Your task to perform on an android device: Search for a runner rug on Crate & Barrel Image 0: 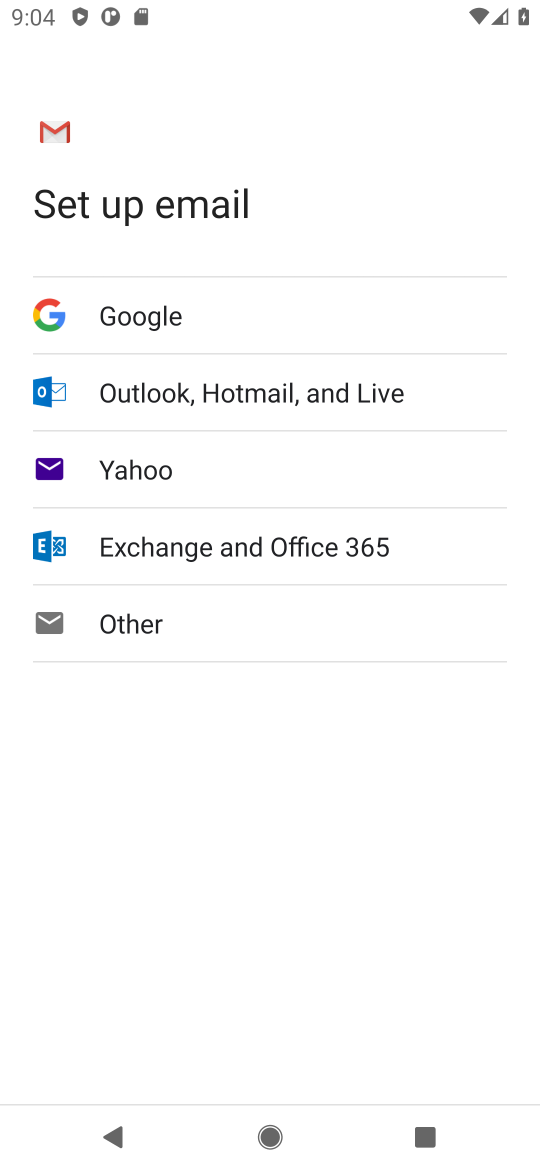
Step 0: press home button
Your task to perform on an android device: Search for a runner rug on Crate & Barrel Image 1: 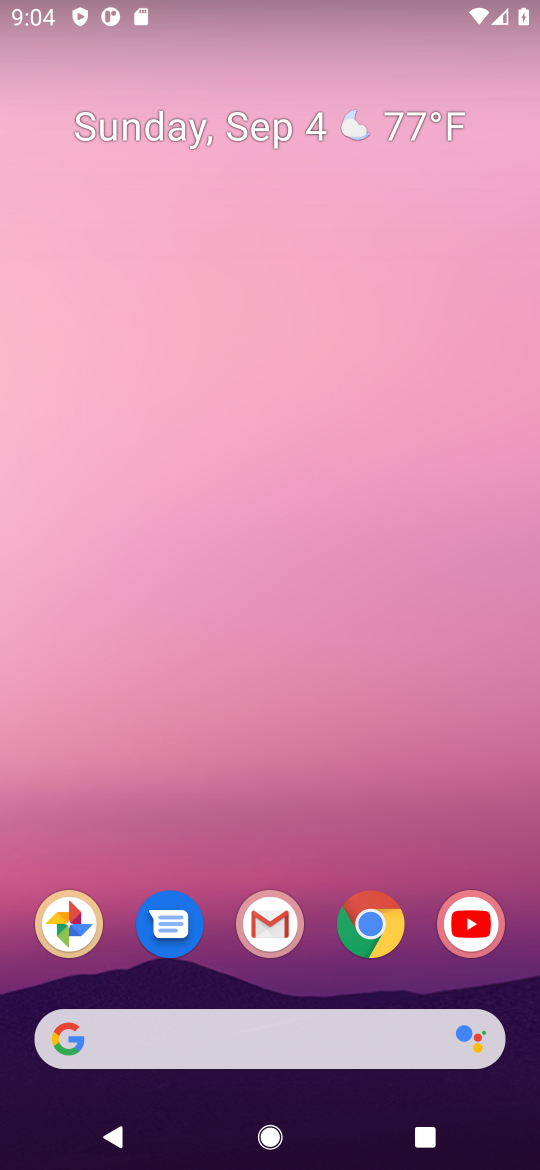
Step 1: drag from (128, 1024) to (279, 35)
Your task to perform on an android device: Search for a runner rug on Crate & Barrel Image 2: 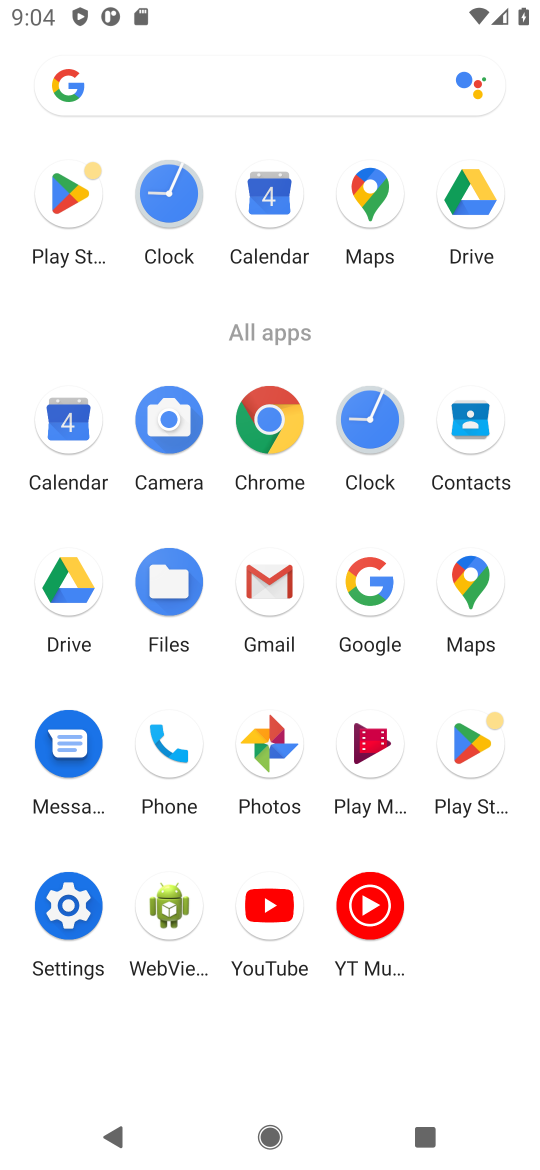
Step 2: click (361, 568)
Your task to perform on an android device: Search for a runner rug on Crate & Barrel Image 3: 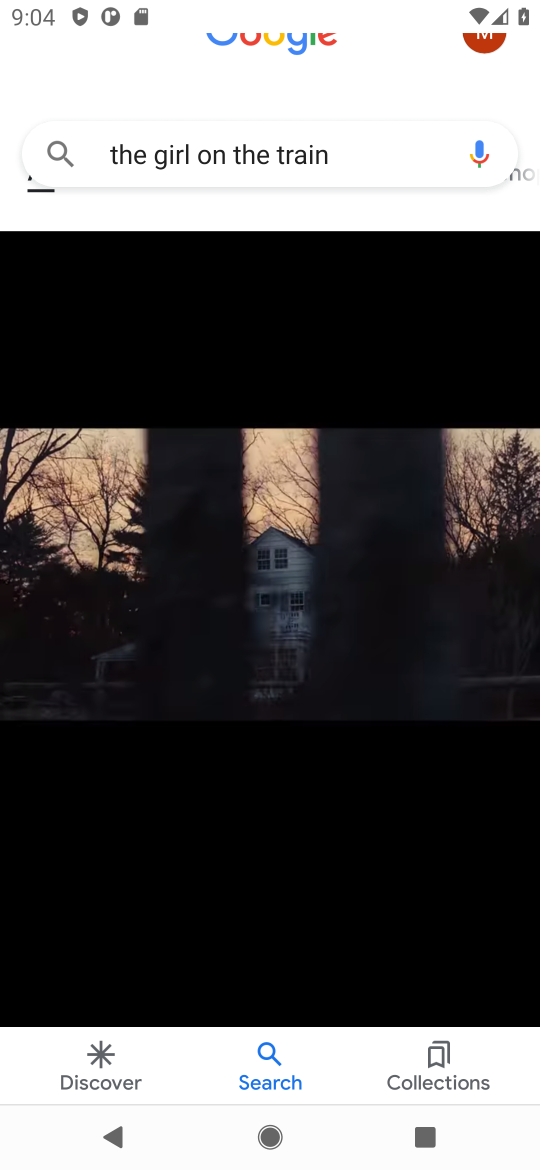
Step 3: click (355, 155)
Your task to perform on an android device: Search for a runner rug on Crate & Barrel Image 4: 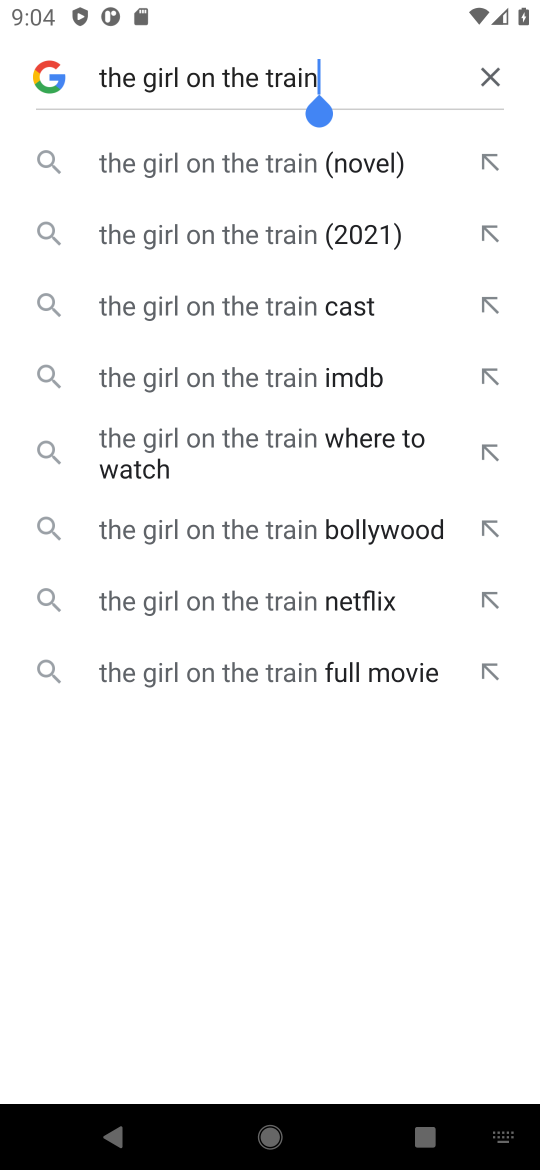
Step 4: click (470, 79)
Your task to perform on an android device: Search for a runner rug on Crate & Barrel Image 5: 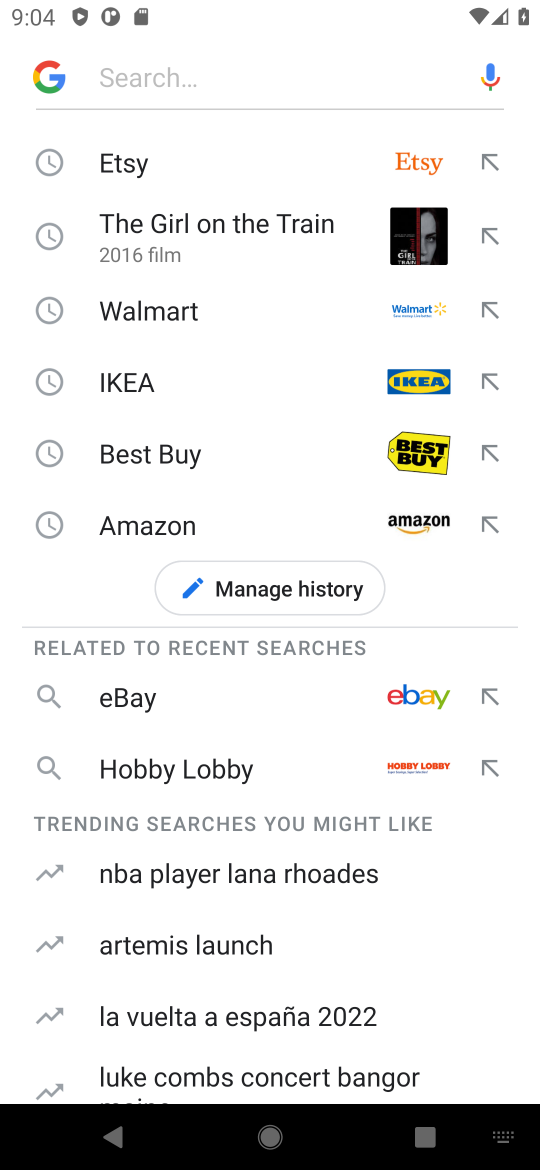
Step 5: type "Crate & Barrel"
Your task to perform on an android device: Search for a runner rug on Crate & Barrel Image 6: 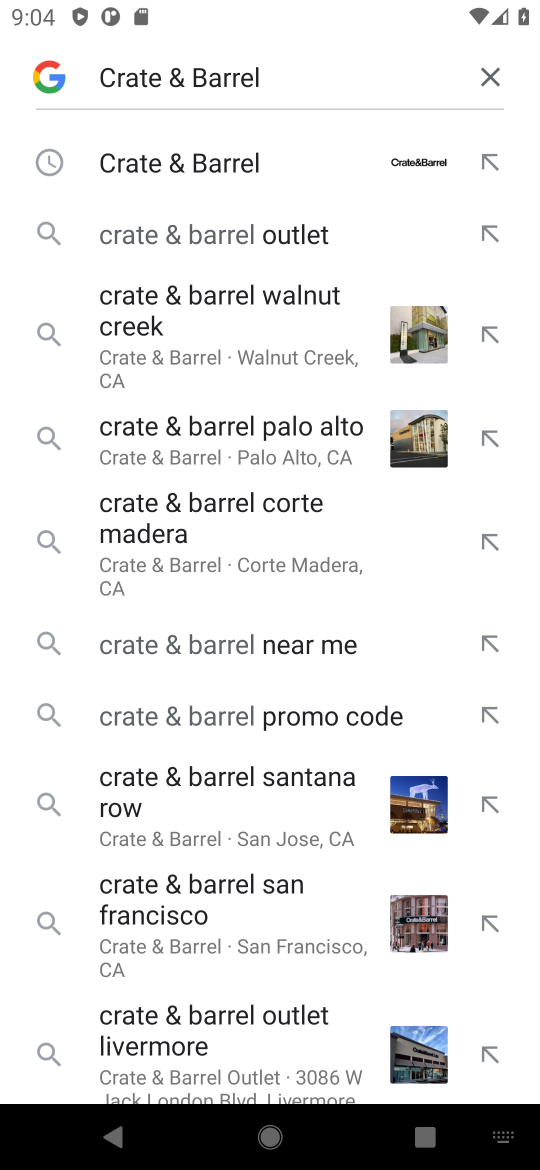
Step 6: click (409, 150)
Your task to perform on an android device: Search for a runner rug on Crate & Barrel Image 7: 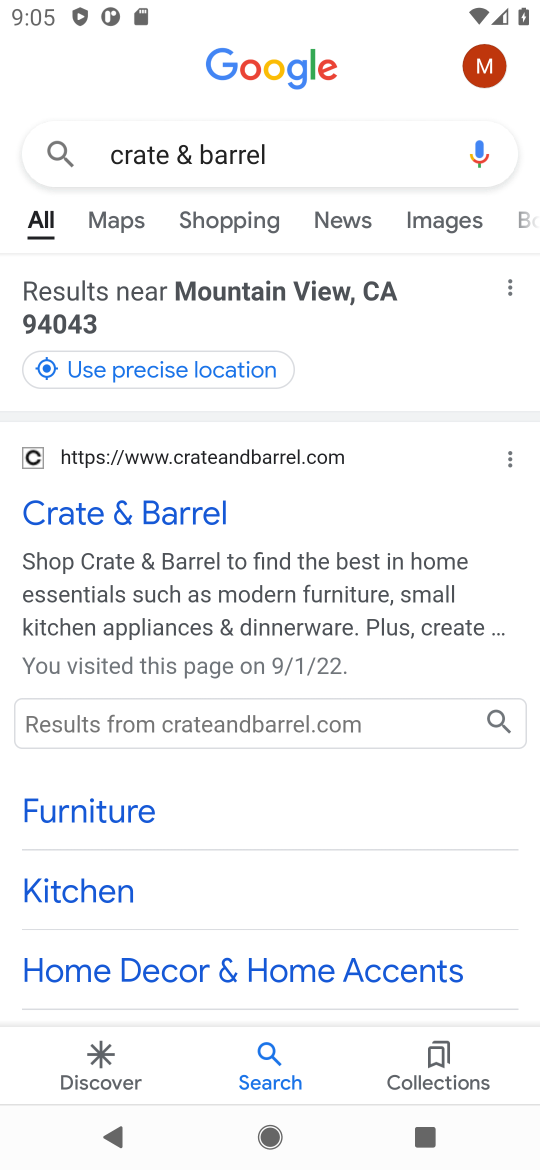
Step 7: click (212, 506)
Your task to perform on an android device: Search for a runner rug on Crate & Barrel Image 8: 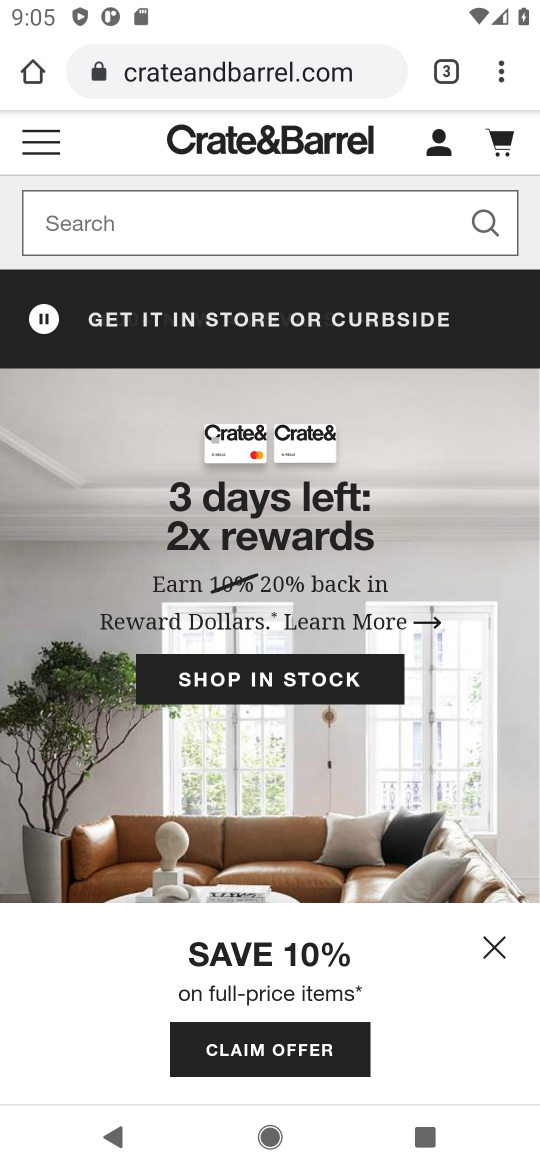
Step 8: click (141, 237)
Your task to perform on an android device: Search for a runner rug on Crate & Barrel Image 9: 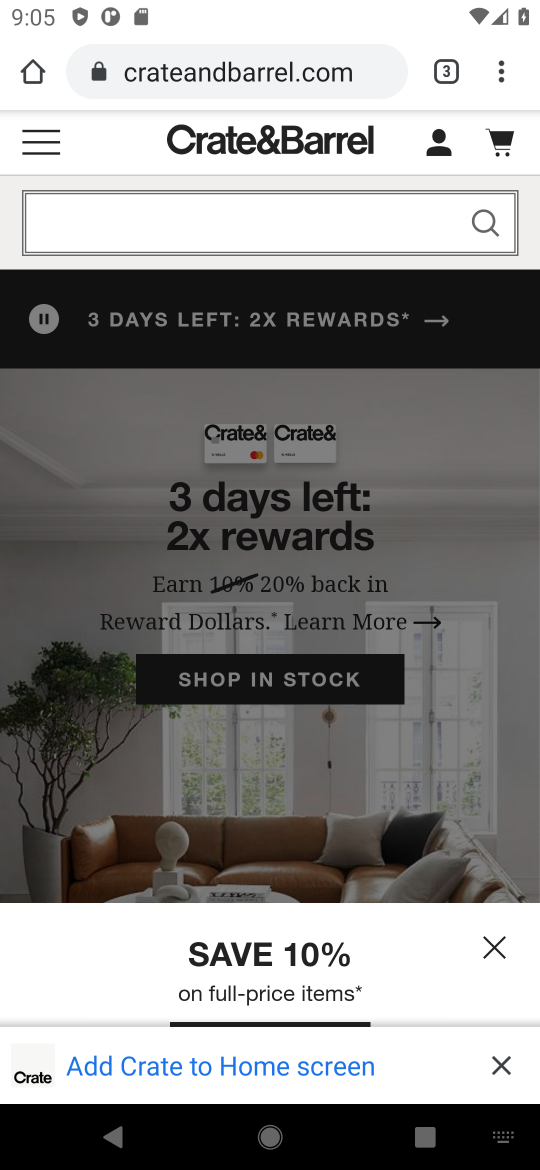
Step 9: type "runner rug "
Your task to perform on an android device: Search for a runner rug on Crate & Barrel Image 10: 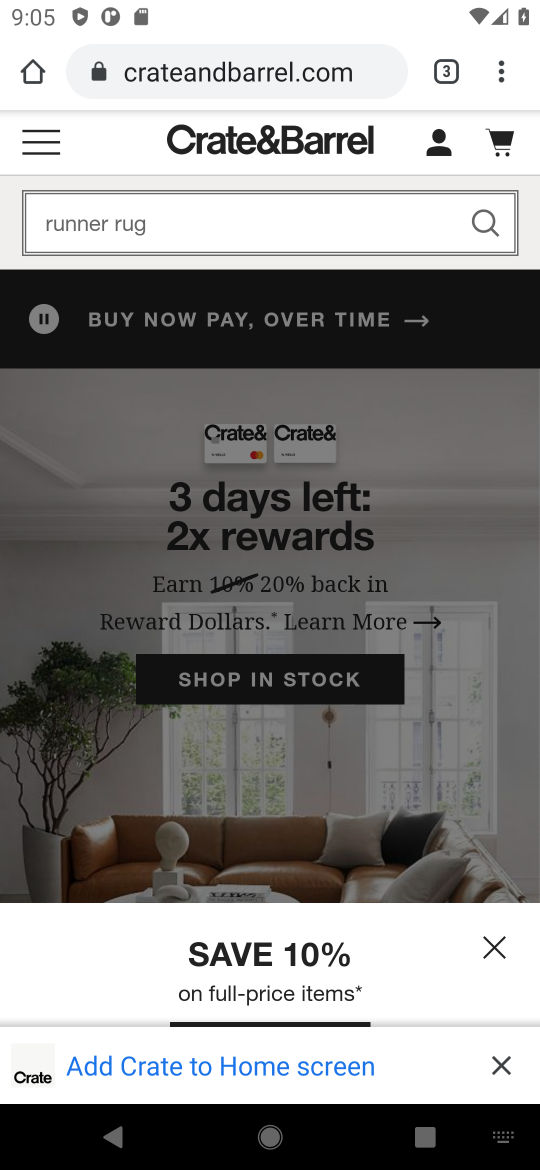
Step 10: click (473, 220)
Your task to perform on an android device: Search for a runner rug on Crate & Barrel Image 11: 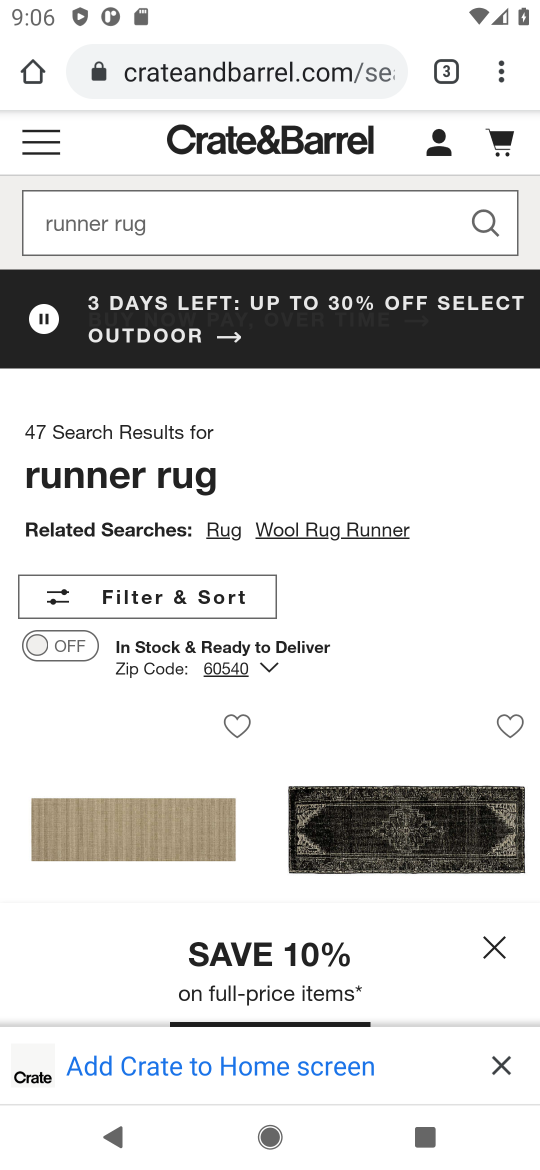
Step 11: task complete